Your task to perform on an android device: Open settings on Google Maps Image 0: 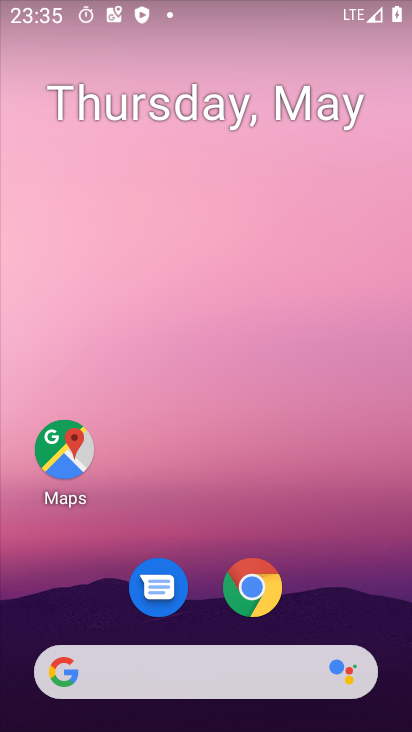
Step 0: click (72, 457)
Your task to perform on an android device: Open settings on Google Maps Image 1: 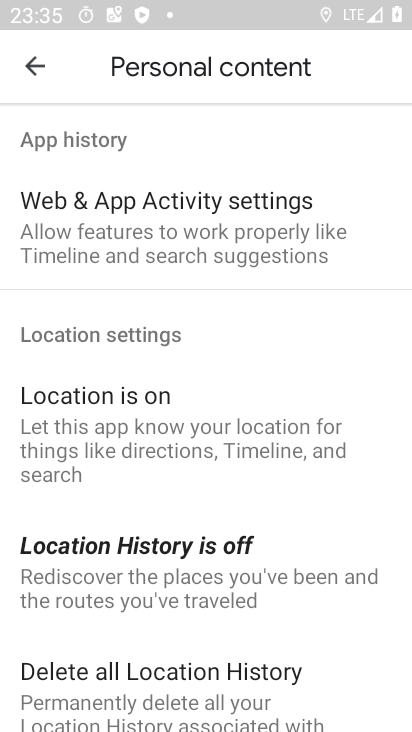
Step 1: press home button
Your task to perform on an android device: Open settings on Google Maps Image 2: 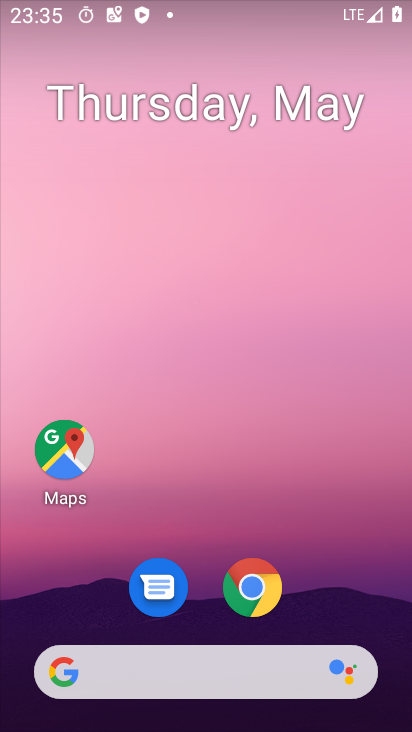
Step 2: click (57, 454)
Your task to perform on an android device: Open settings on Google Maps Image 3: 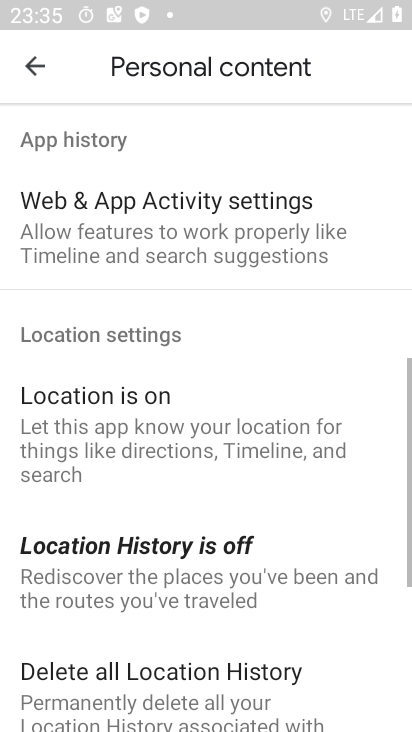
Step 3: click (29, 70)
Your task to perform on an android device: Open settings on Google Maps Image 4: 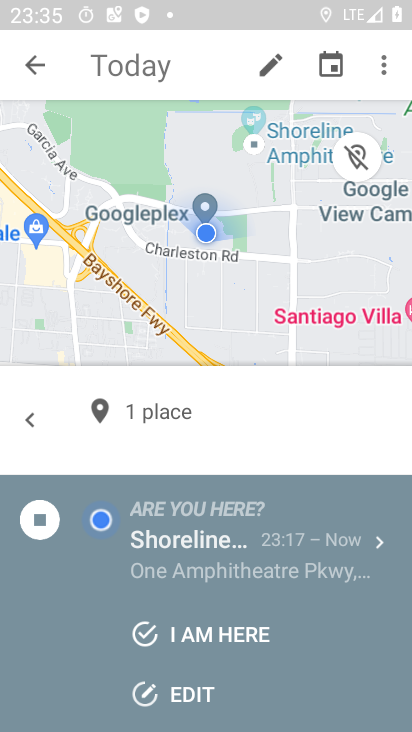
Step 4: click (29, 70)
Your task to perform on an android device: Open settings on Google Maps Image 5: 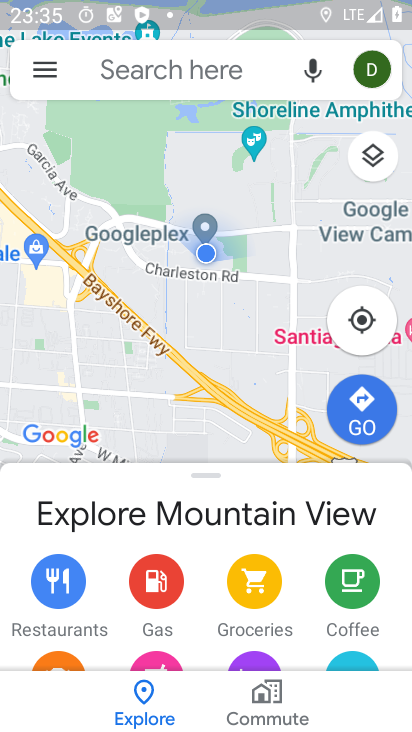
Step 5: click (29, 70)
Your task to perform on an android device: Open settings on Google Maps Image 6: 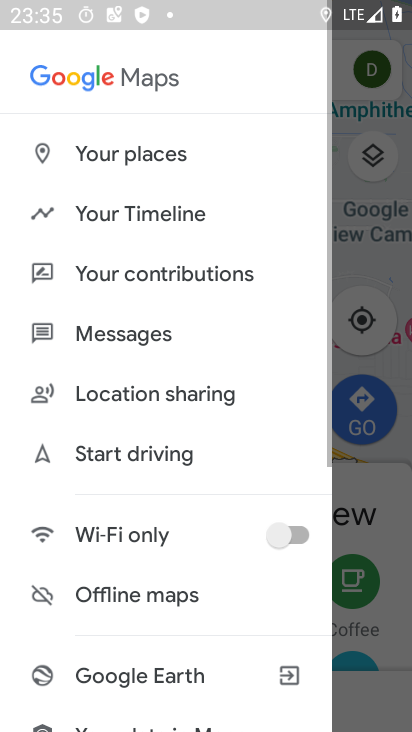
Step 6: drag from (162, 580) to (143, 48)
Your task to perform on an android device: Open settings on Google Maps Image 7: 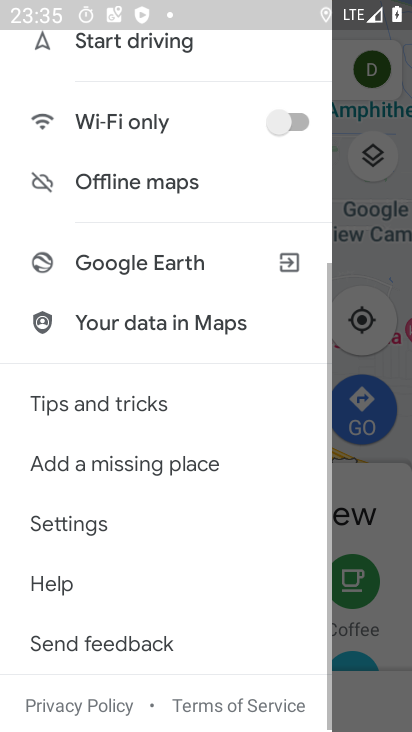
Step 7: click (76, 516)
Your task to perform on an android device: Open settings on Google Maps Image 8: 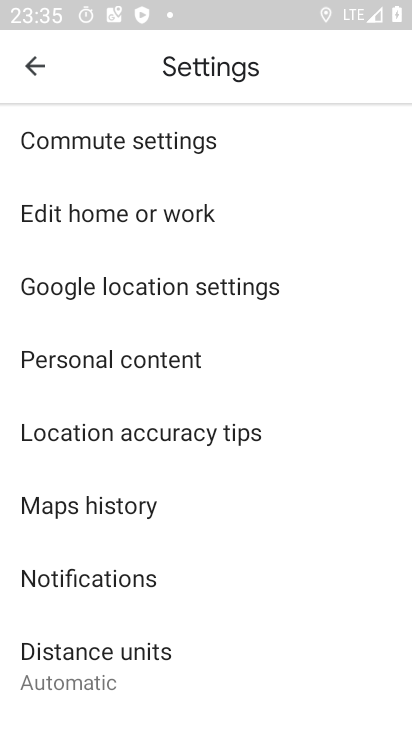
Step 8: task complete